Your task to perform on an android device: change the clock display to analog Image 0: 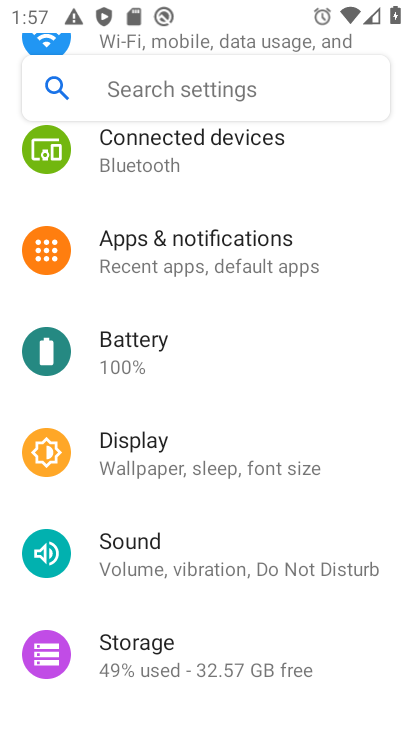
Step 0: press home button
Your task to perform on an android device: change the clock display to analog Image 1: 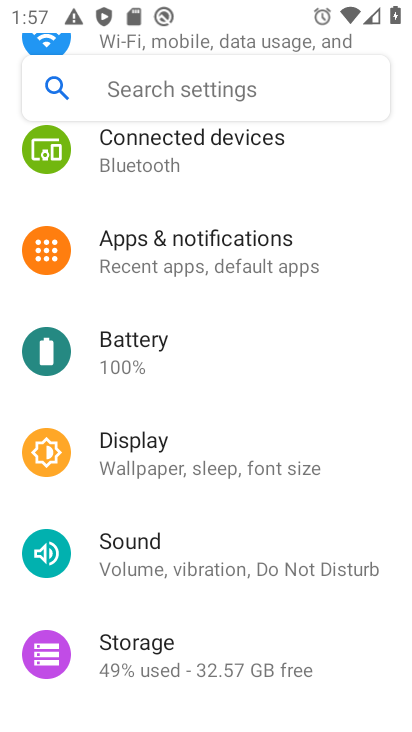
Step 1: press home button
Your task to perform on an android device: change the clock display to analog Image 2: 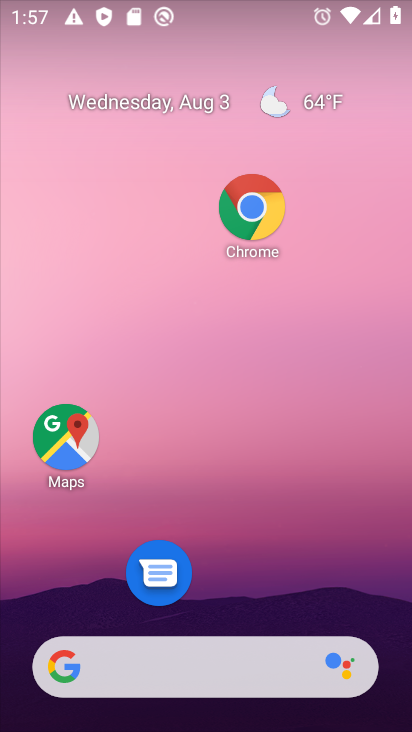
Step 2: drag from (217, 655) to (356, 114)
Your task to perform on an android device: change the clock display to analog Image 3: 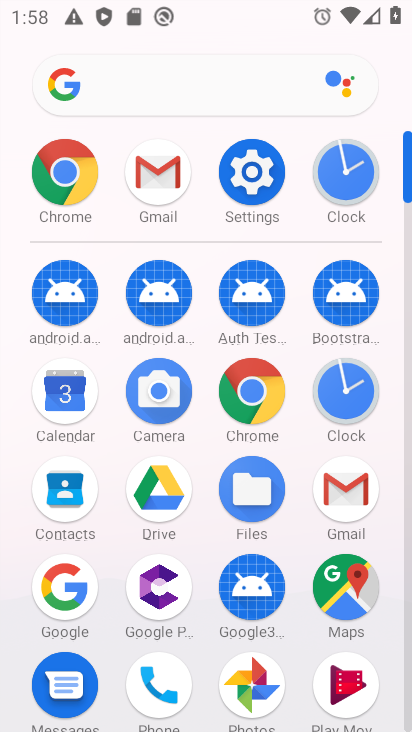
Step 3: drag from (238, 502) to (281, 193)
Your task to perform on an android device: change the clock display to analog Image 4: 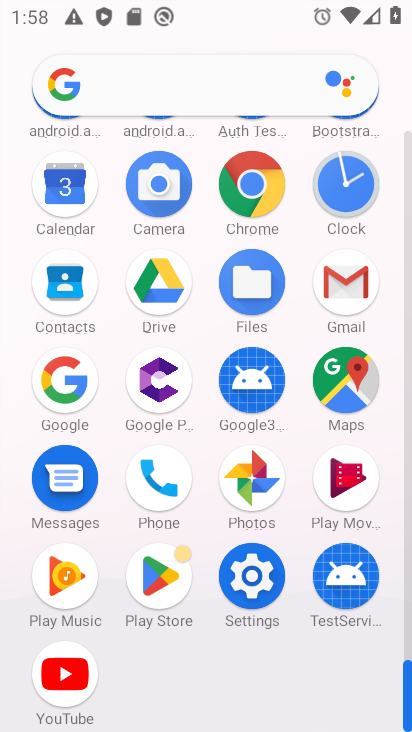
Step 4: click (345, 200)
Your task to perform on an android device: change the clock display to analog Image 5: 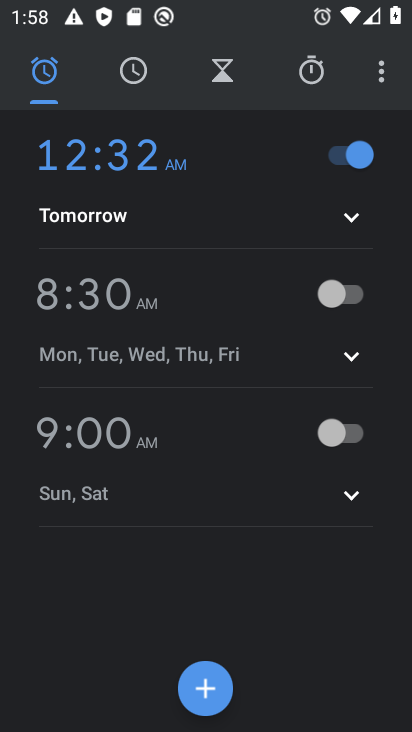
Step 5: click (390, 79)
Your task to perform on an android device: change the clock display to analog Image 6: 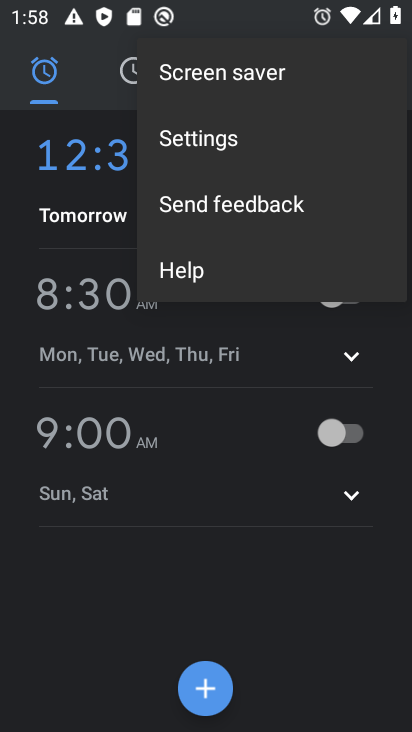
Step 6: click (235, 140)
Your task to perform on an android device: change the clock display to analog Image 7: 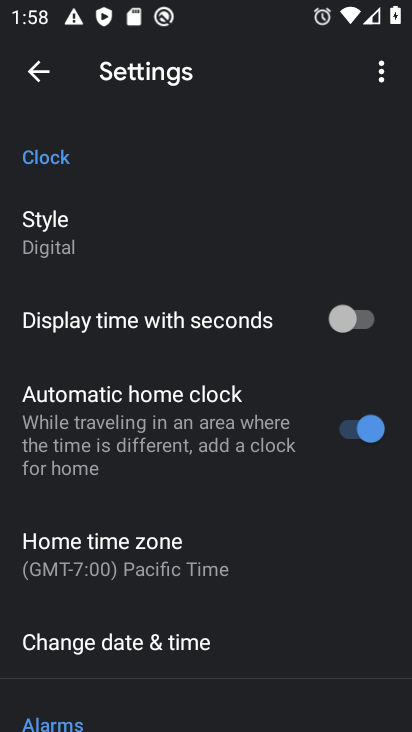
Step 7: click (109, 239)
Your task to perform on an android device: change the clock display to analog Image 8: 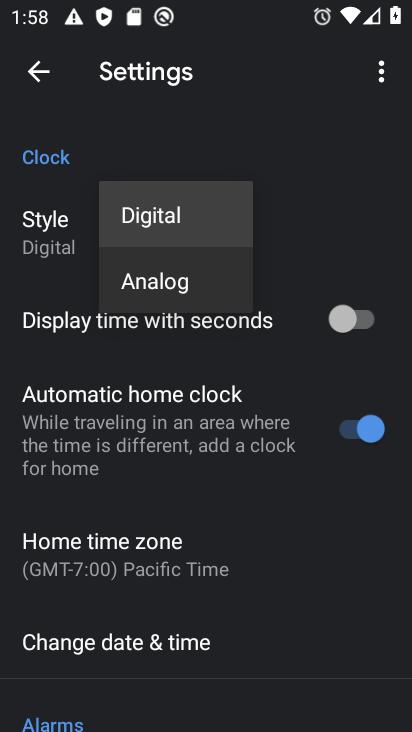
Step 8: click (150, 277)
Your task to perform on an android device: change the clock display to analog Image 9: 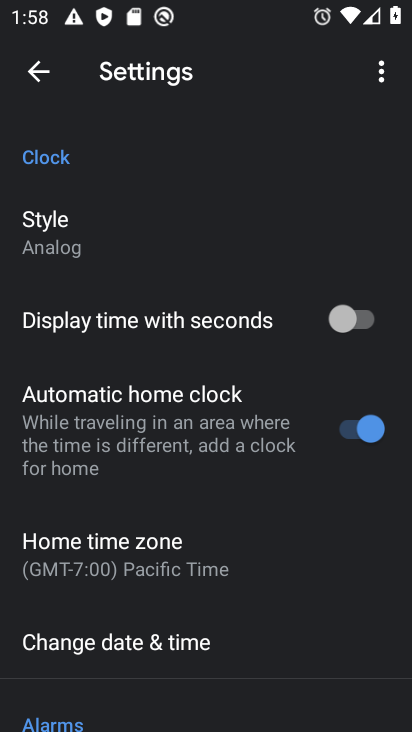
Step 9: task complete